Your task to perform on an android device: What's the weather going to be this weekend? Image 0: 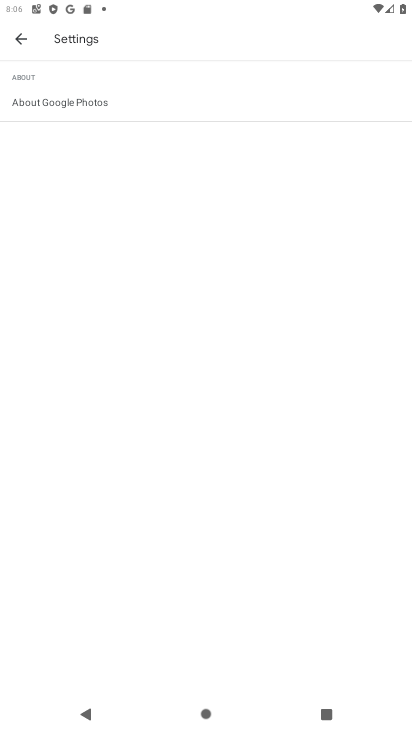
Step 0: press home button
Your task to perform on an android device: What's the weather going to be this weekend? Image 1: 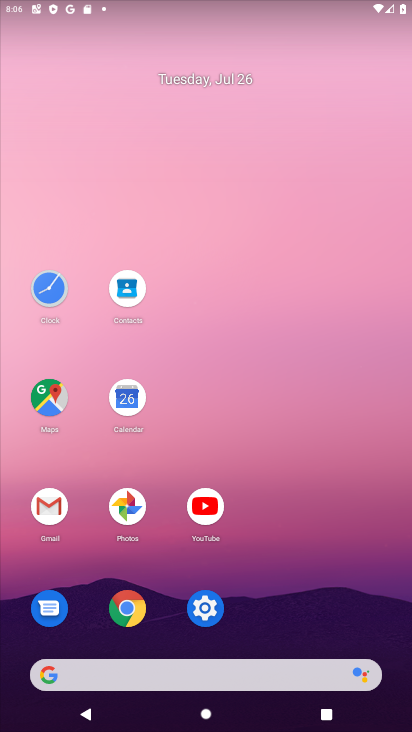
Step 1: click (178, 676)
Your task to perform on an android device: What's the weather going to be this weekend? Image 2: 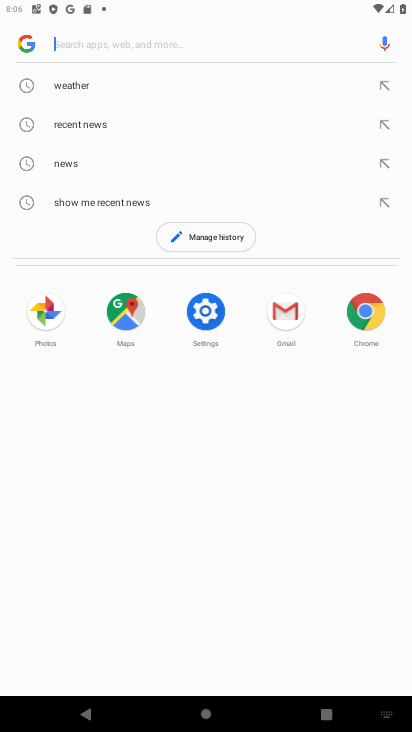
Step 2: click (76, 81)
Your task to perform on an android device: What's the weather going to be this weekend? Image 3: 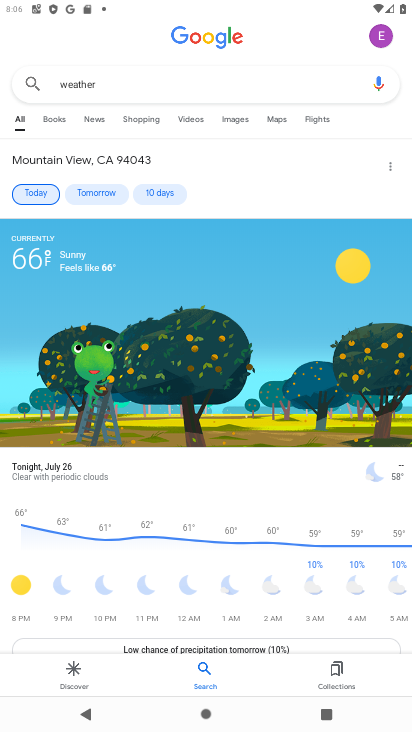
Step 3: click (161, 187)
Your task to perform on an android device: What's the weather going to be this weekend? Image 4: 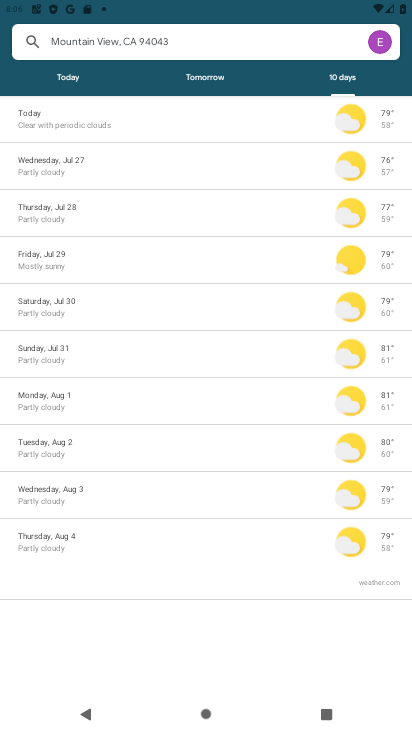
Step 4: task complete